Your task to perform on an android device: turn off improve location accuracy Image 0: 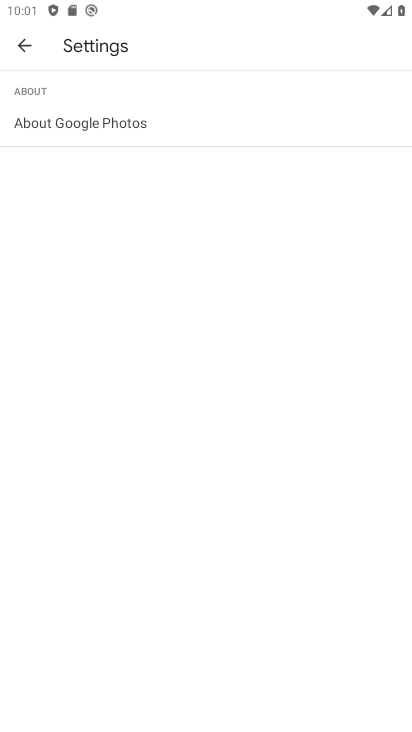
Step 0: press home button
Your task to perform on an android device: turn off improve location accuracy Image 1: 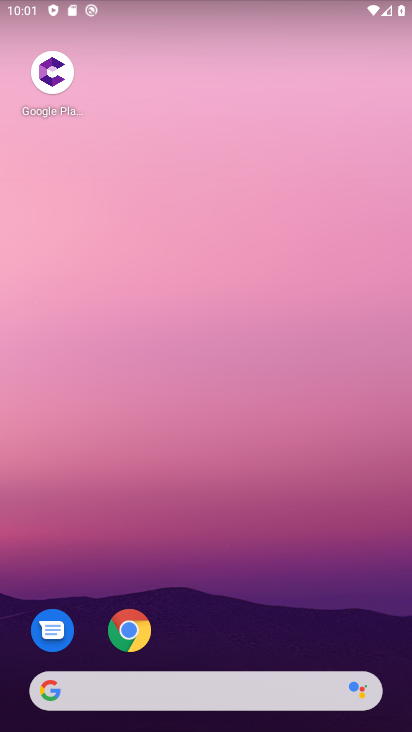
Step 1: drag from (241, 644) to (215, 8)
Your task to perform on an android device: turn off improve location accuracy Image 2: 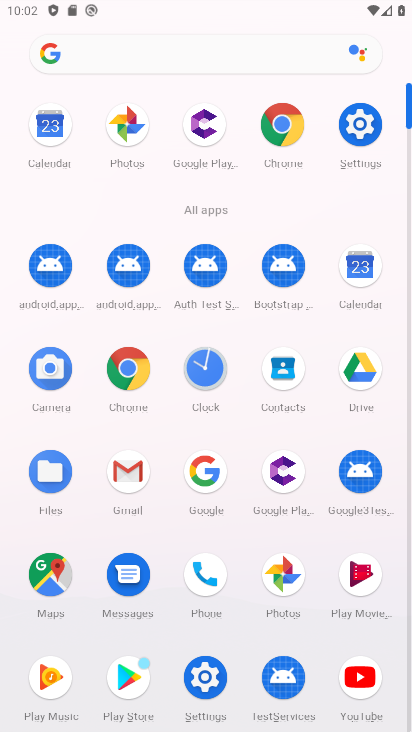
Step 2: click (363, 133)
Your task to perform on an android device: turn off improve location accuracy Image 3: 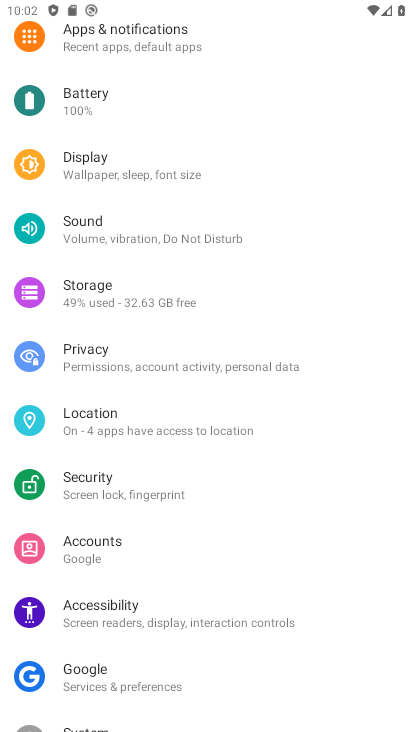
Step 3: click (93, 428)
Your task to perform on an android device: turn off improve location accuracy Image 4: 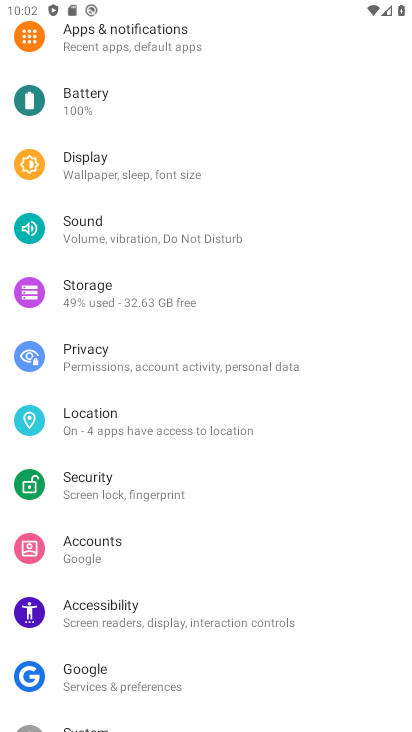
Step 4: click (74, 426)
Your task to perform on an android device: turn off improve location accuracy Image 5: 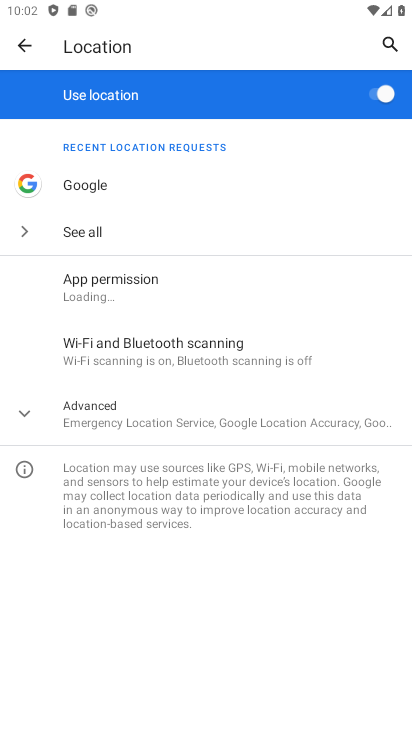
Step 5: click (27, 419)
Your task to perform on an android device: turn off improve location accuracy Image 6: 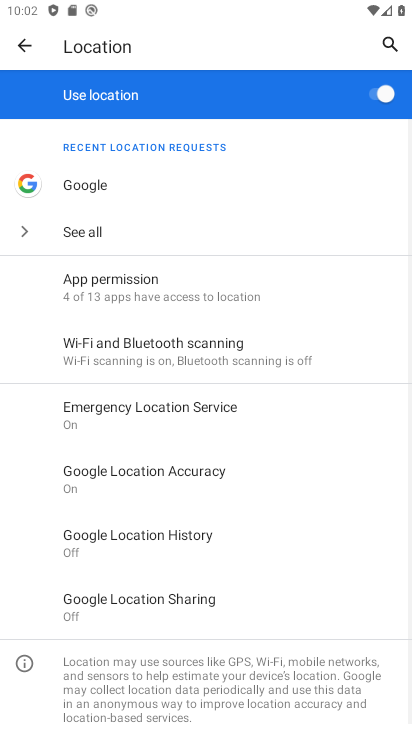
Step 6: click (121, 476)
Your task to perform on an android device: turn off improve location accuracy Image 7: 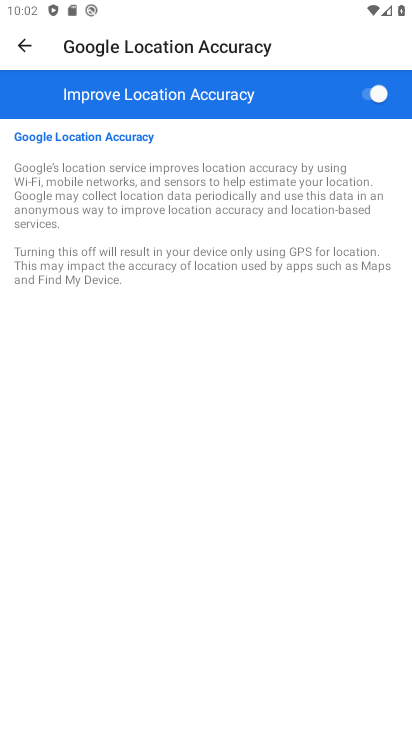
Step 7: click (371, 102)
Your task to perform on an android device: turn off improve location accuracy Image 8: 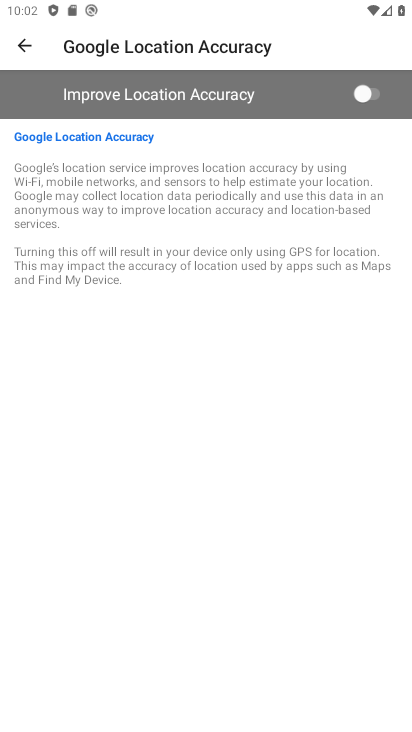
Step 8: task complete